Your task to perform on an android device: Open Youtube and go to "Your channel" Image 0: 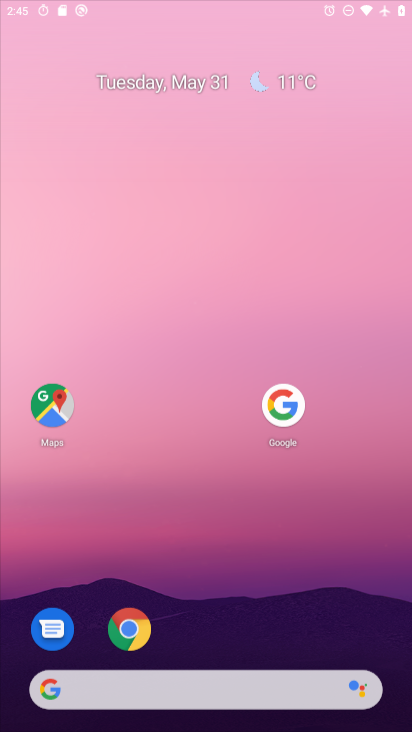
Step 0: press home button
Your task to perform on an android device: Open Youtube and go to "Your channel" Image 1: 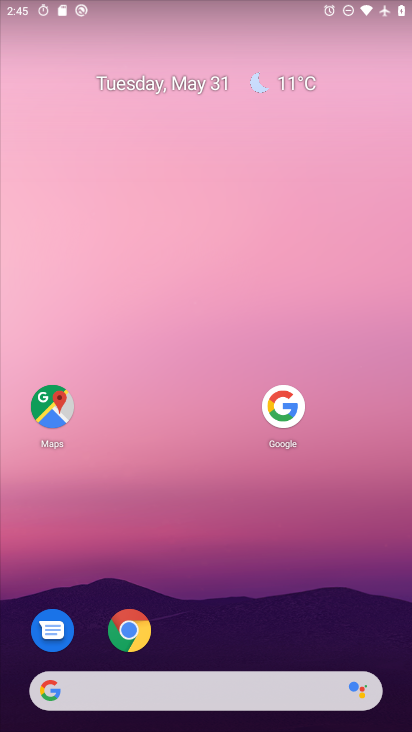
Step 1: drag from (124, 687) to (253, 153)
Your task to perform on an android device: Open Youtube and go to "Your channel" Image 2: 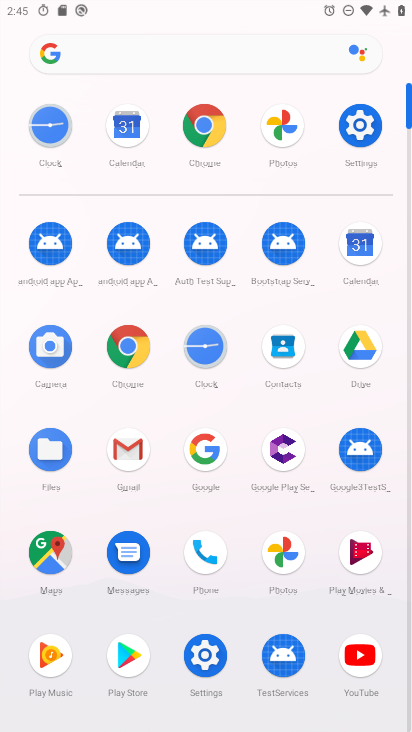
Step 2: click (355, 651)
Your task to perform on an android device: Open Youtube and go to "Your channel" Image 3: 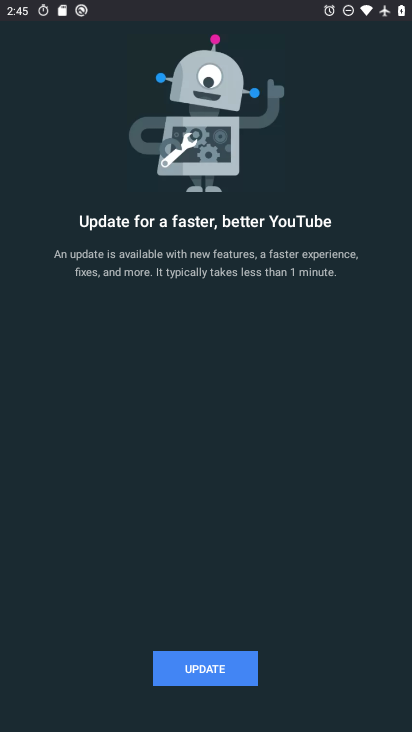
Step 3: click (181, 685)
Your task to perform on an android device: Open Youtube and go to "Your channel" Image 4: 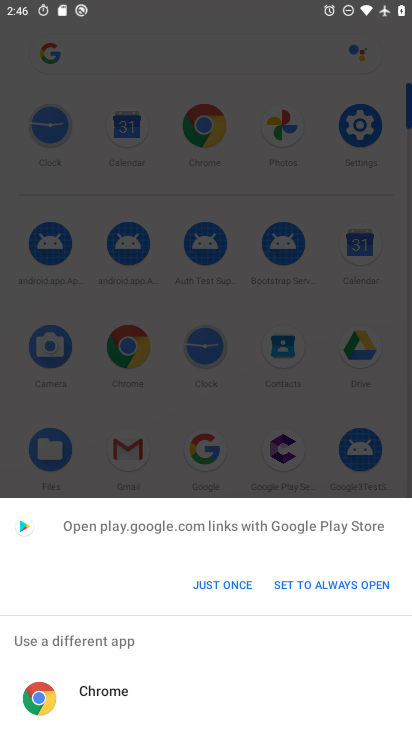
Step 4: click (229, 585)
Your task to perform on an android device: Open Youtube and go to "Your channel" Image 5: 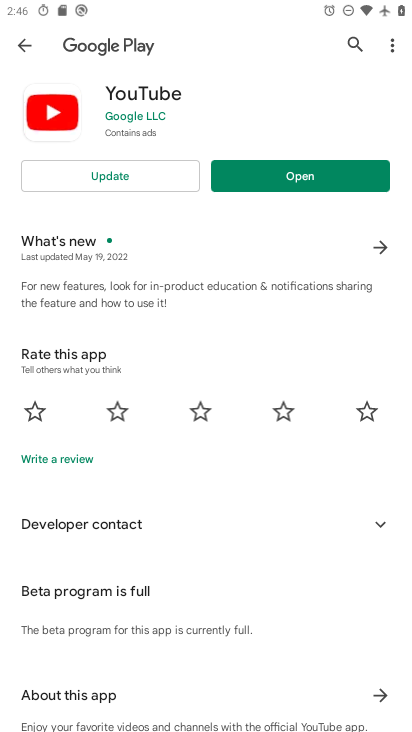
Step 5: click (156, 173)
Your task to perform on an android device: Open Youtube and go to "Your channel" Image 6: 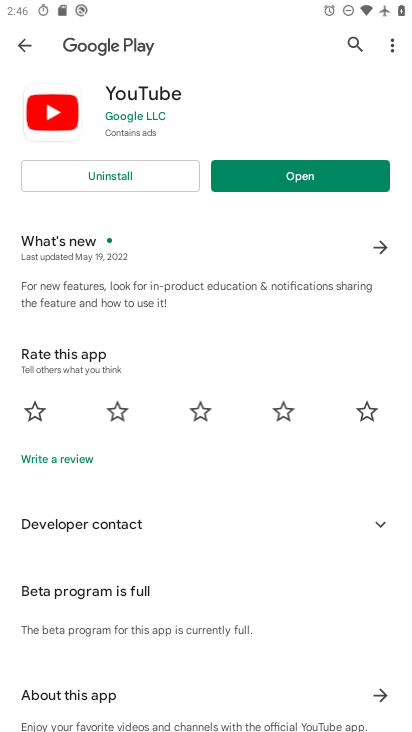
Step 6: click (295, 167)
Your task to perform on an android device: Open Youtube and go to "Your channel" Image 7: 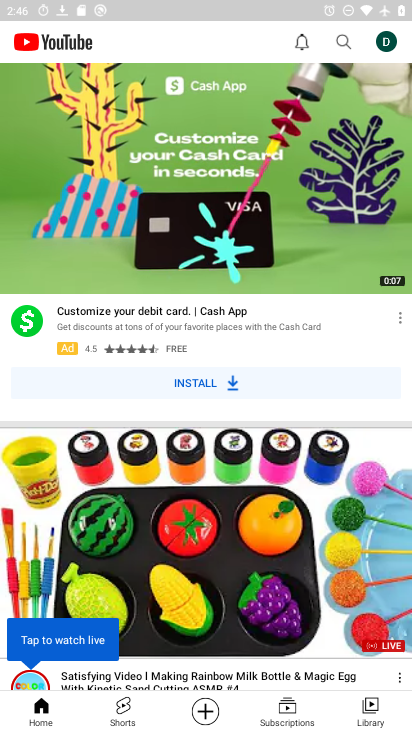
Step 7: click (378, 46)
Your task to perform on an android device: Open Youtube and go to "Your channel" Image 8: 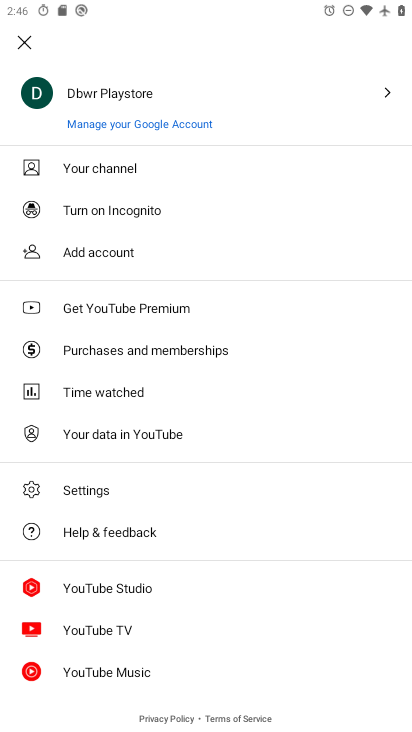
Step 8: click (108, 170)
Your task to perform on an android device: Open Youtube and go to "Your channel" Image 9: 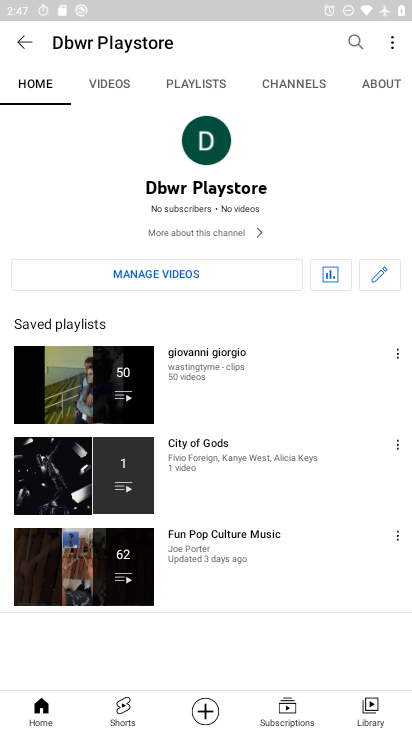
Step 9: task complete